Your task to perform on an android device: Open sound settings Image 0: 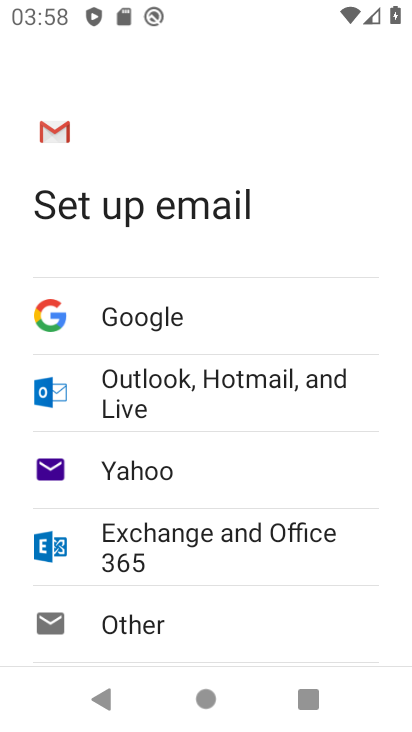
Step 0: press home button
Your task to perform on an android device: Open sound settings Image 1: 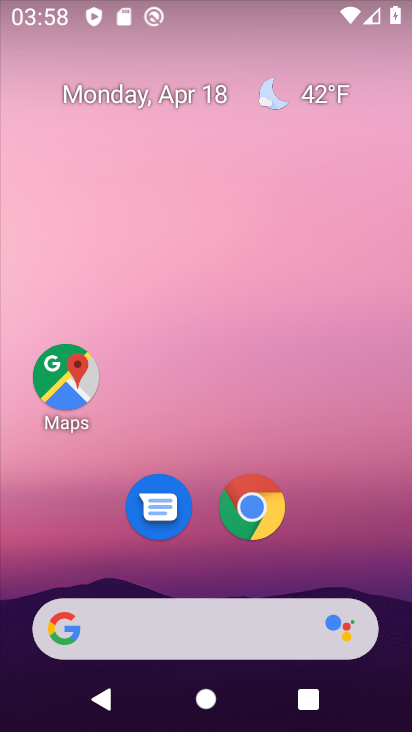
Step 1: drag from (260, 481) to (299, 160)
Your task to perform on an android device: Open sound settings Image 2: 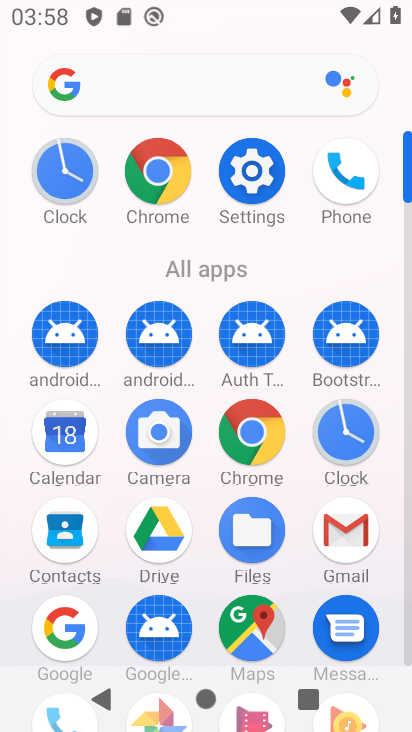
Step 2: click (249, 174)
Your task to perform on an android device: Open sound settings Image 3: 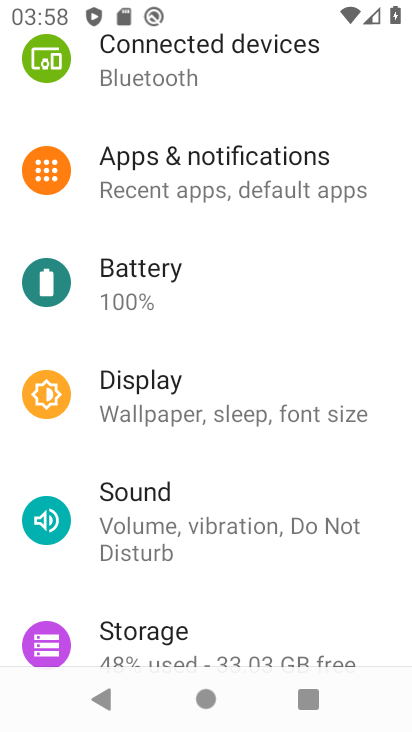
Step 3: click (213, 506)
Your task to perform on an android device: Open sound settings Image 4: 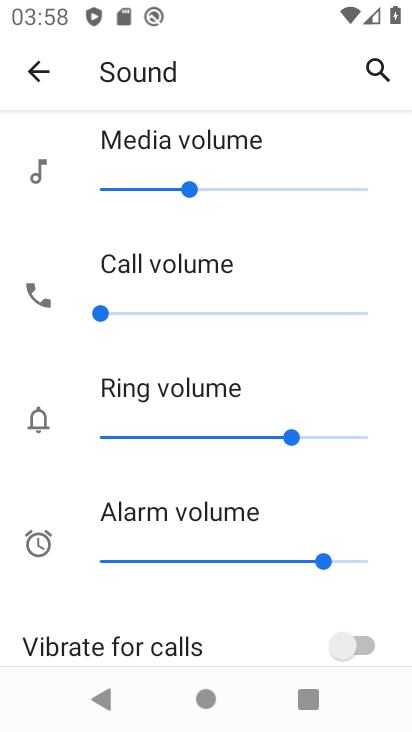
Step 4: task complete